Your task to perform on an android device: Open Google Chrome and open the bookmarks view Image 0: 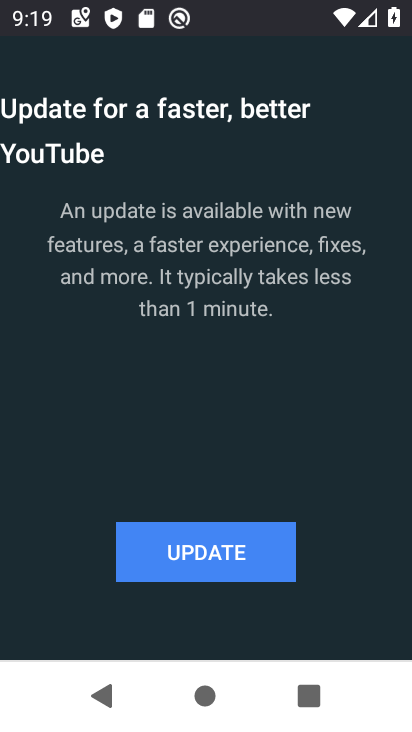
Step 0: press home button
Your task to perform on an android device: Open Google Chrome and open the bookmarks view Image 1: 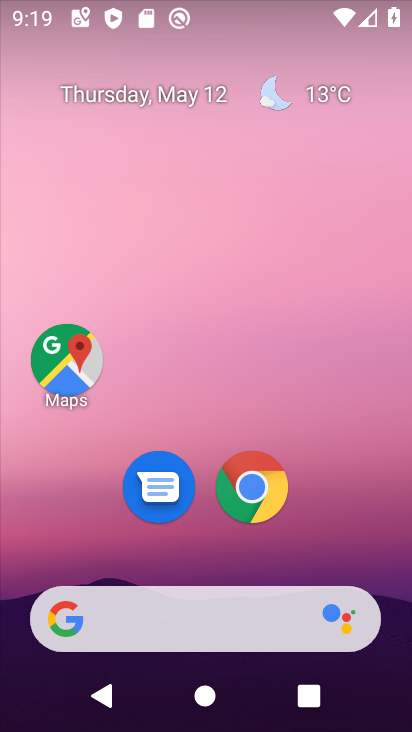
Step 1: click (242, 480)
Your task to perform on an android device: Open Google Chrome and open the bookmarks view Image 2: 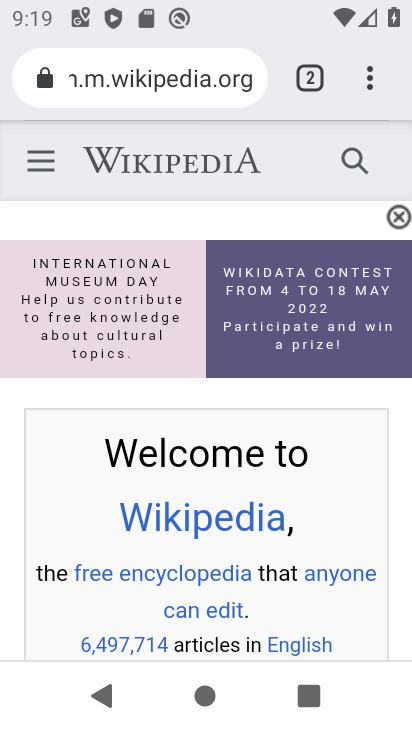
Step 2: click (370, 69)
Your task to perform on an android device: Open Google Chrome and open the bookmarks view Image 3: 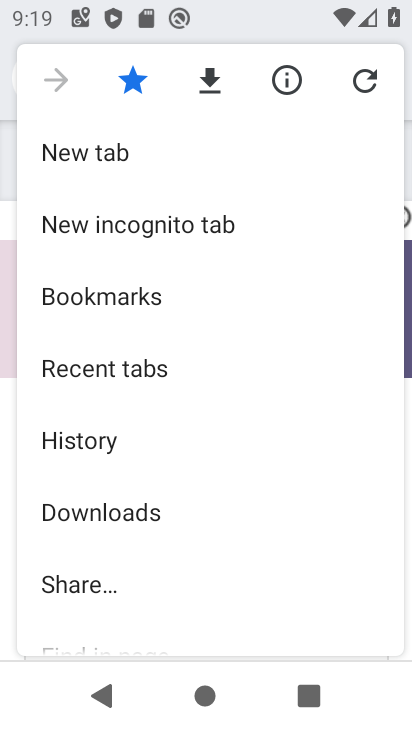
Step 3: click (162, 312)
Your task to perform on an android device: Open Google Chrome and open the bookmarks view Image 4: 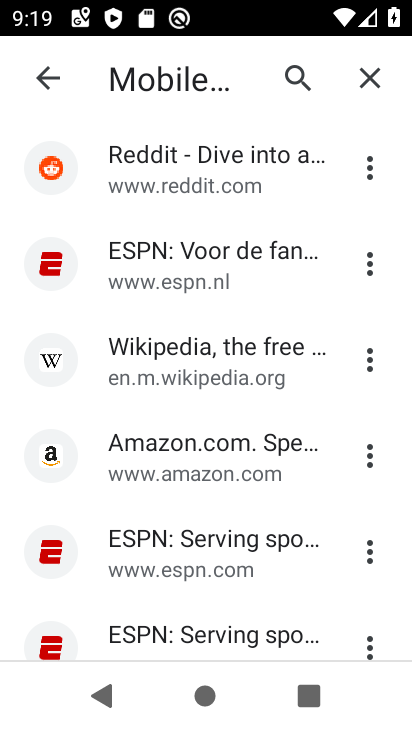
Step 4: task complete